Your task to perform on an android device: turn on improve location accuracy Image 0: 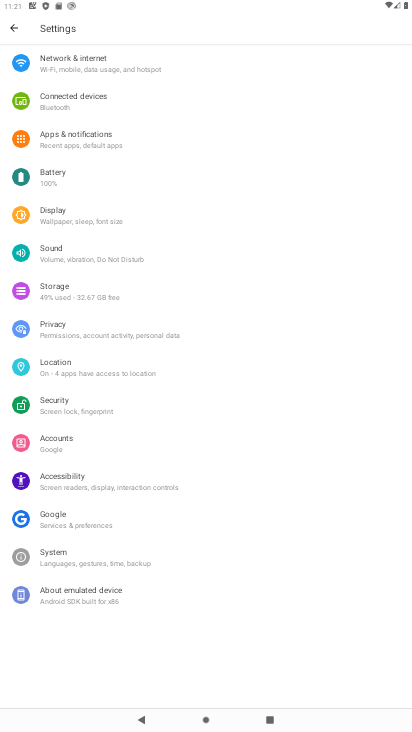
Step 0: click (82, 366)
Your task to perform on an android device: turn on improve location accuracy Image 1: 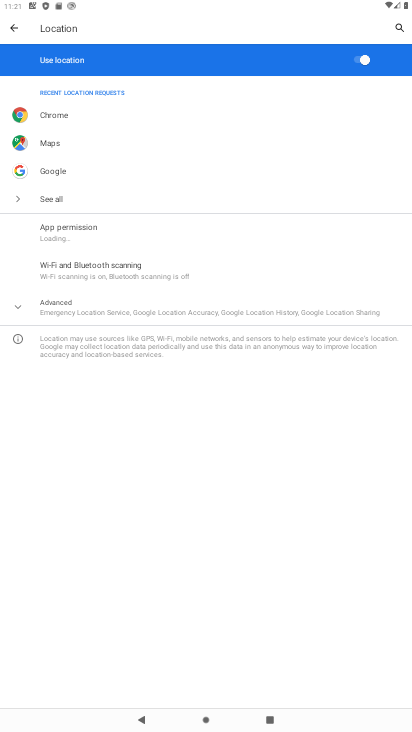
Step 1: click (56, 314)
Your task to perform on an android device: turn on improve location accuracy Image 2: 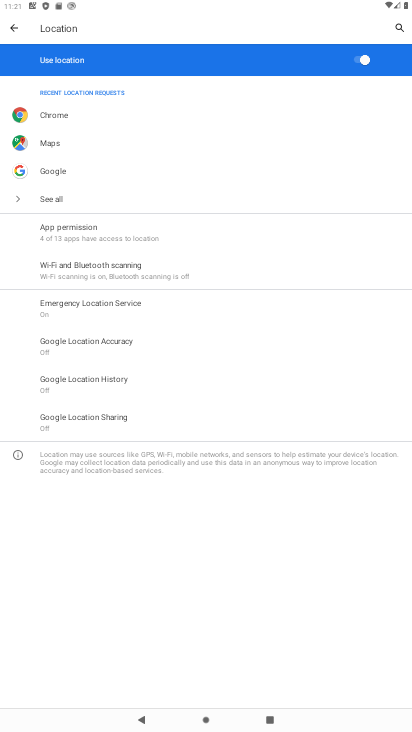
Step 2: click (115, 348)
Your task to perform on an android device: turn on improve location accuracy Image 3: 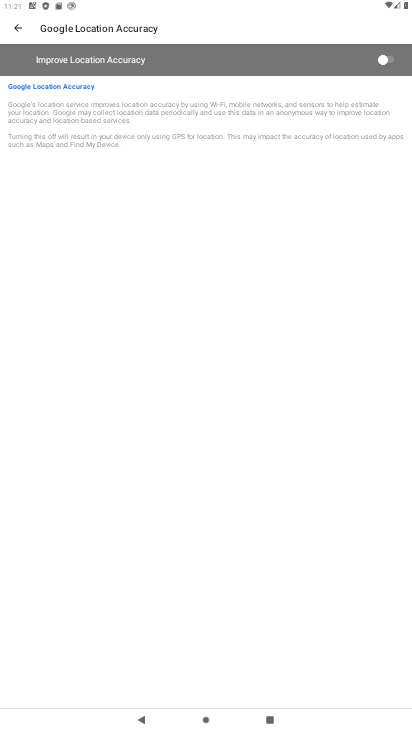
Step 3: click (388, 59)
Your task to perform on an android device: turn on improve location accuracy Image 4: 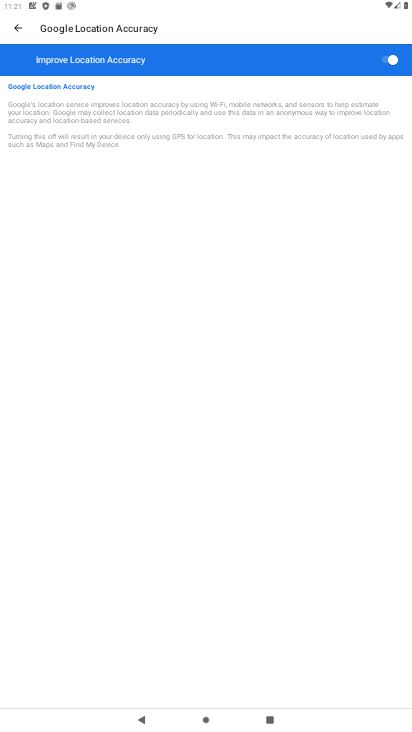
Step 4: task complete